Your task to perform on an android device: toggle pop-ups in chrome Image 0: 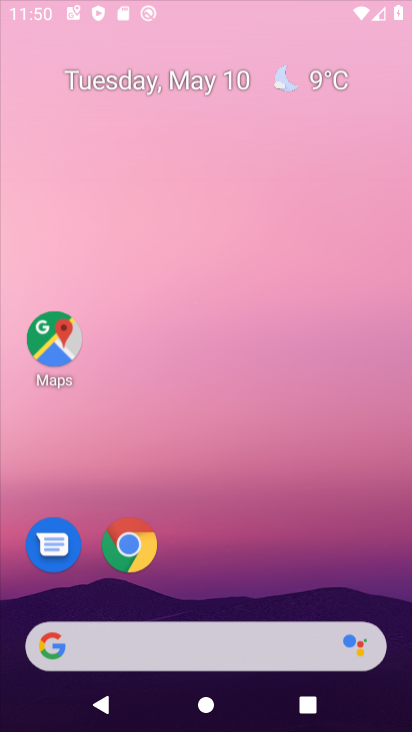
Step 0: click (303, 45)
Your task to perform on an android device: toggle pop-ups in chrome Image 1: 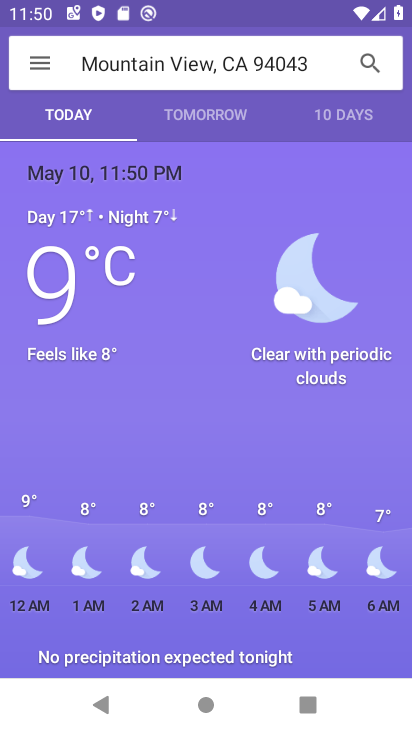
Step 1: press home button
Your task to perform on an android device: toggle pop-ups in chrome Image 2: 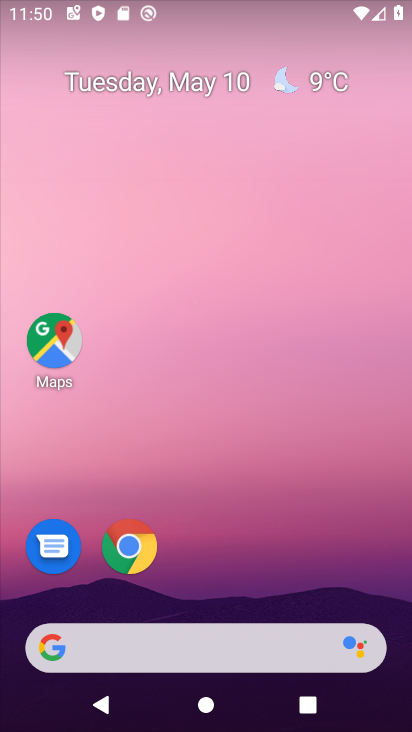
Step 2: drag from (237, 472) to (252, 226)
Your task to perform on an android device: toggle pop-ups in chrome Image 3: 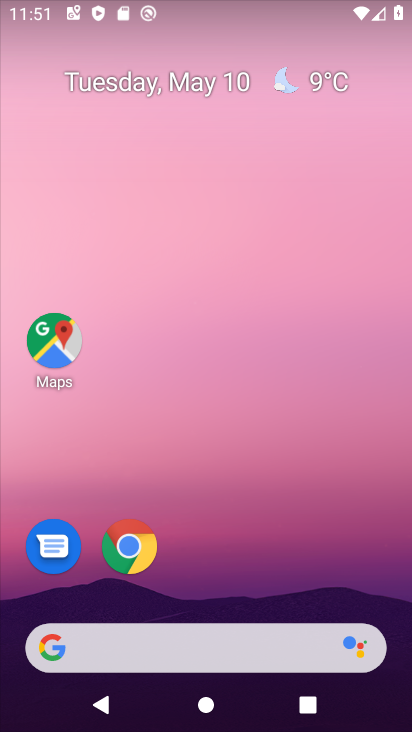
Step 3: drag from (224, 606) to (276, 130)
Your task to perform on an android device: toggle pop-ups in chrome Image 4: 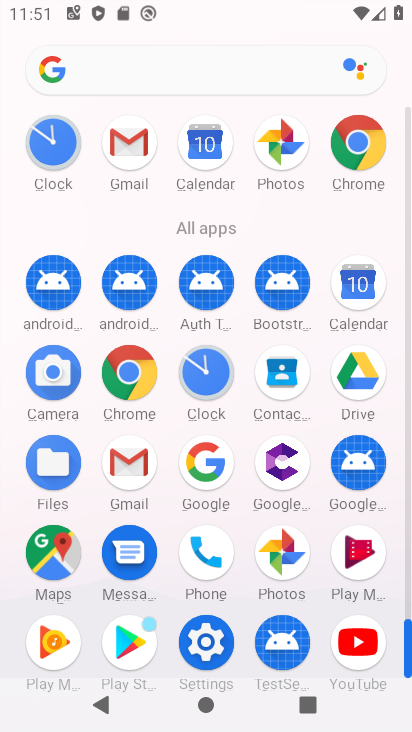
Step 4: click (356, 135)
Your task to perform on an android device: toggle pop-ups in chrome Image 5: 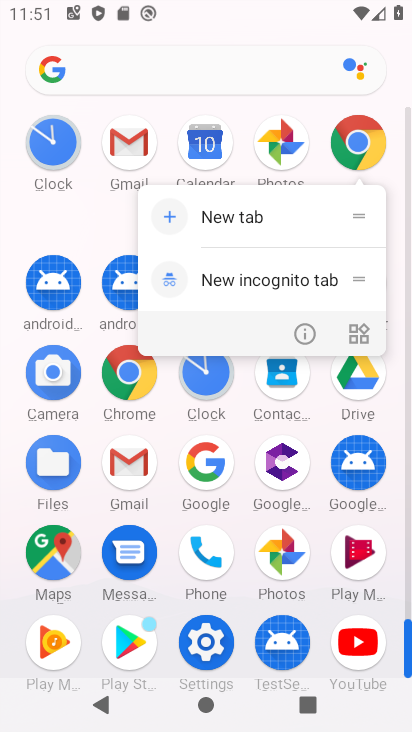
Step 5: click (307, 325)
Your task to perform on an android device: toggle pop-ups in chrome Image 6: 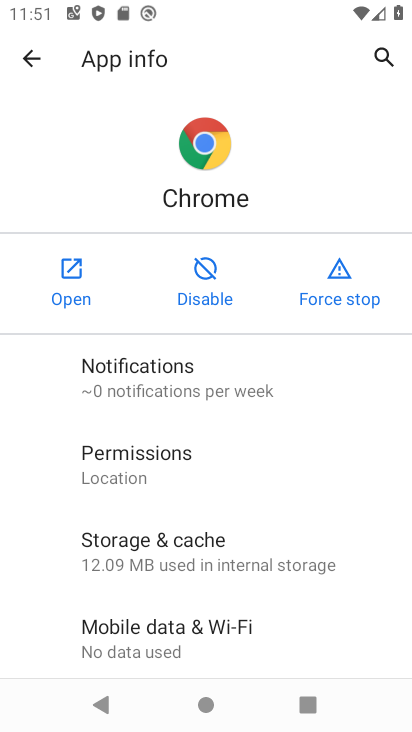
Step 6: click (68, 267)
Your task to perform on an android device: toggle pop-ups in chrome Image 7: 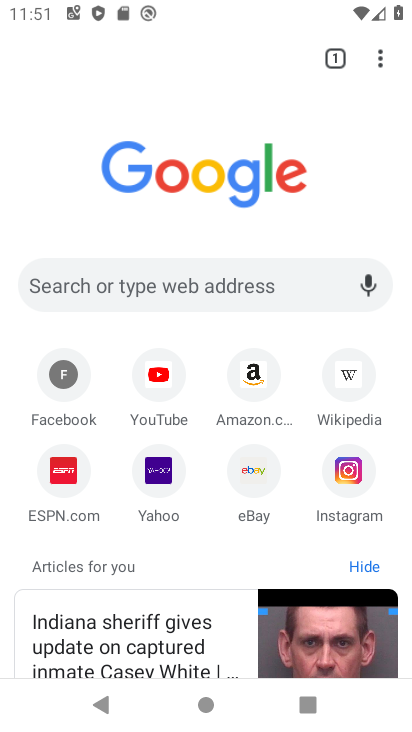
Step 7: drag from (384, 65) to (215, 503)
Your task to perform on an android device: toggle pop-ups in chrome Image 8: 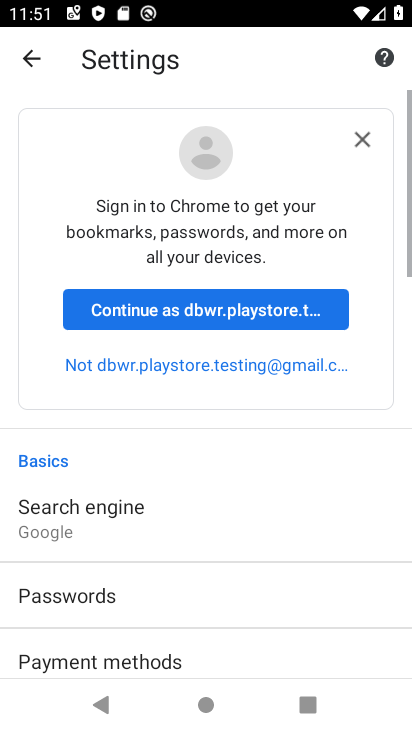
Step 8: drag from (158, 572) to (13, 343)
Your task to perform on an android device: toggle pop-ups in chrome Image 9: 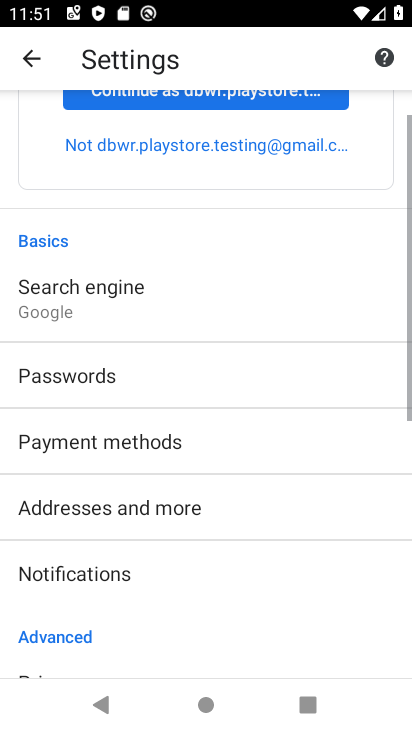
Step 9: click (103, 488)
Your task to perform on an android device: toggle pop-ups in chrome Image 10: 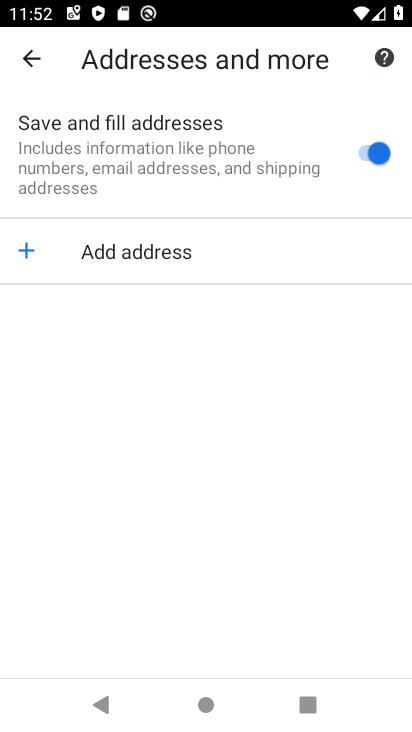
Step 10: click (33, 65)
Your task to perform on an android device: toggle pop-ups in chrome Image 11: 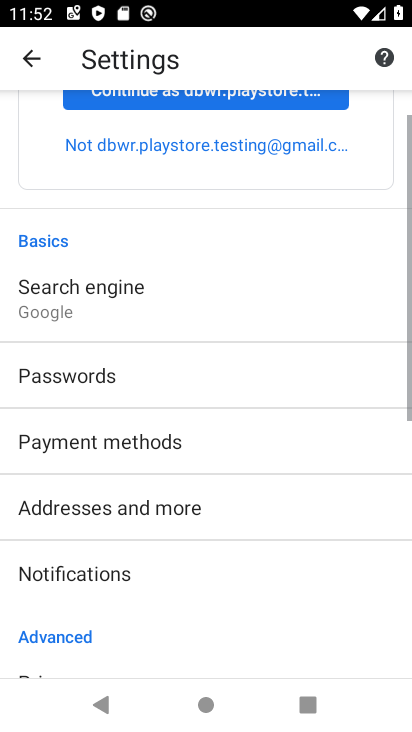
Step 11: drag from (132, 459) to (213, 95)
Your task to perform on an android device: toggle pop-ups in chrome Image 12: 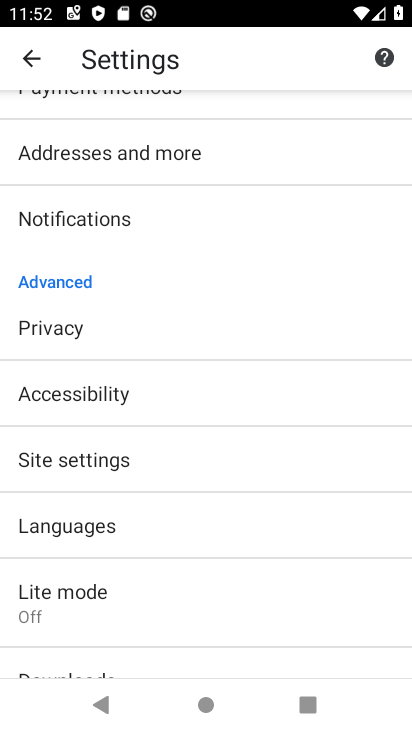
Step 12: click (69, 450)
Your task to perform on an android device: toggle pop-ups in chrome Image 13: 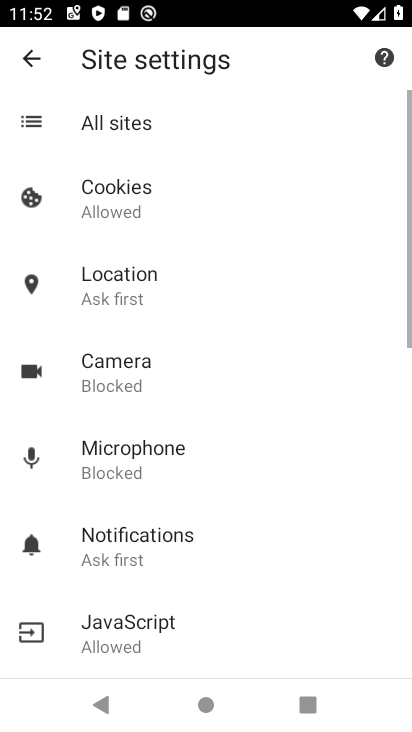
Step 13: drag from (147, 539) to (297, 151)
Your task to perform on an android device: toggle pop-ups in chrome Image 14: 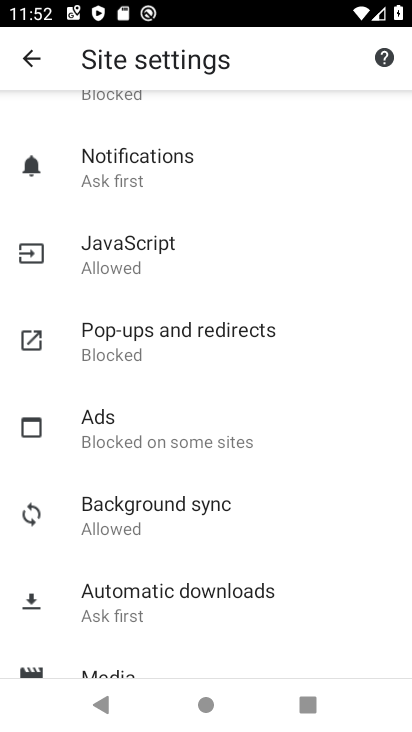
Step 14: click (186, 344)
Your task to perform on an android device: toggle pop-ups in chrome Image 15: 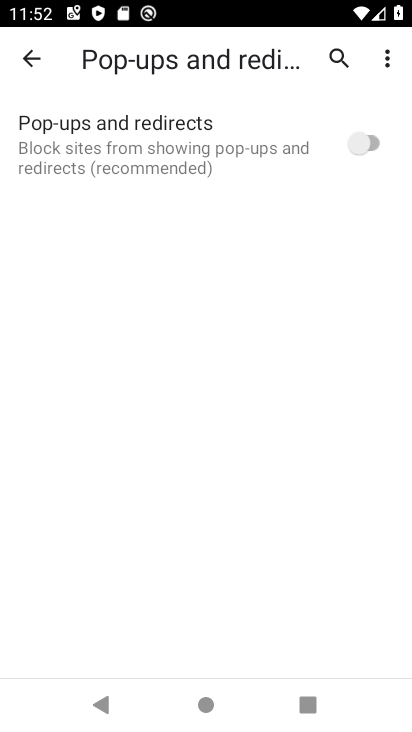
Step 15: click (344, 150)
Your task to perform on an android device: toggle pop-ups in chrome Image 16: 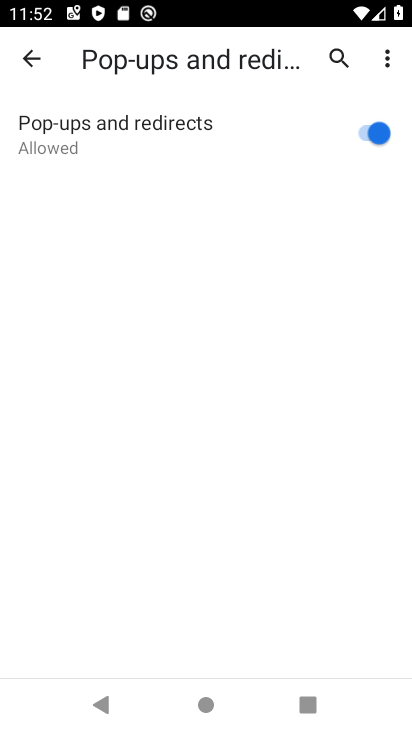
Step 16: task complete